Your task to perform on an android device: change your default location settings in chrome Image 0: 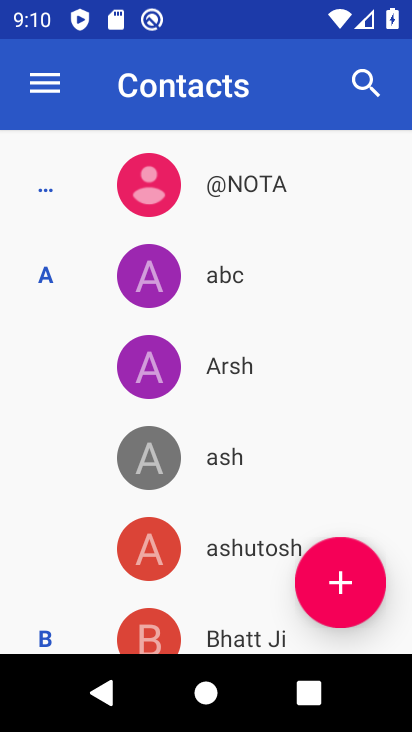
Step 0: press home button
Your task to perform on an android device: change your default location settings in chrome Image 1: 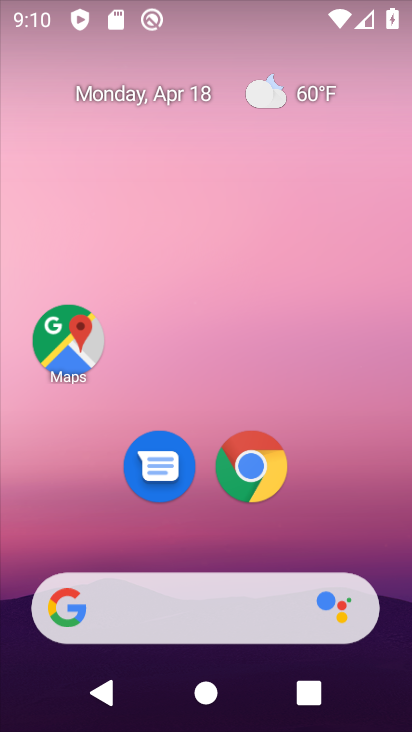
Step 1: click (241, 461)
Your task to perform on an android device: change your default location settings in chrome Image 2: 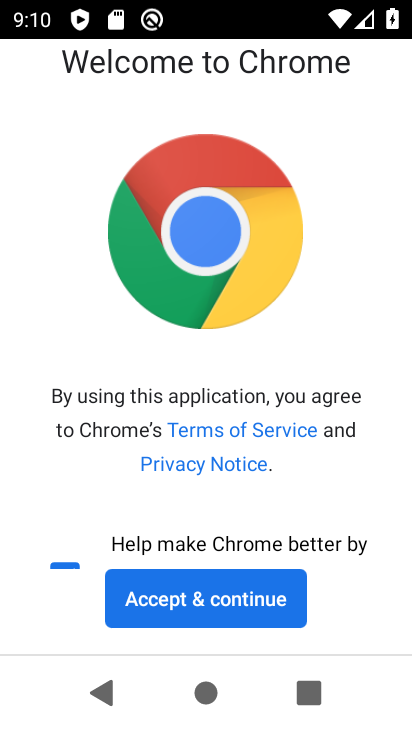
Step 2: click (220, 601)
Your task to perform on an android device: change your default location settings in chrome Image 3: 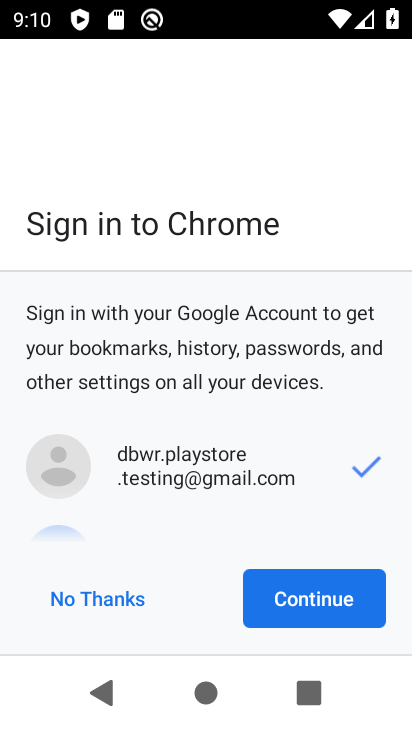
Step 3: click (293, 607)
Your task to perform on an android device: change your default location settings in chrome Image 4: 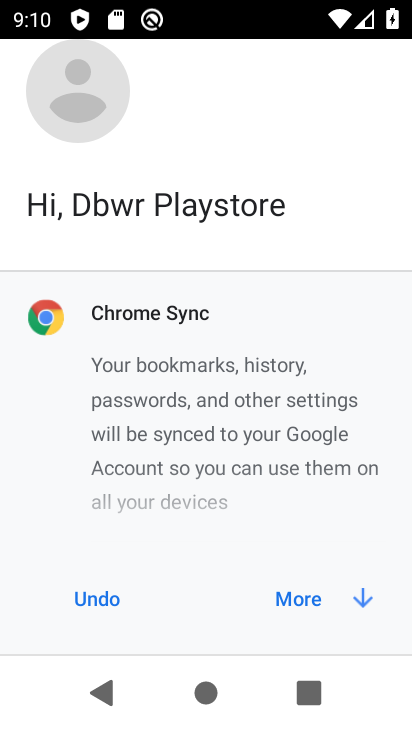
Step 4: click (291, 594)
Your task to perform on an android device: change your default location settings in chrome Image 5: 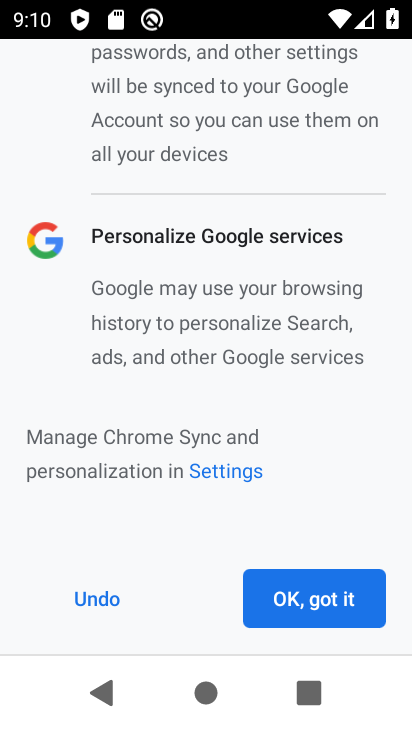
Step 5: click (363, 598)
Your task to perform on an android device: change your default location settings in chrome Image 6: 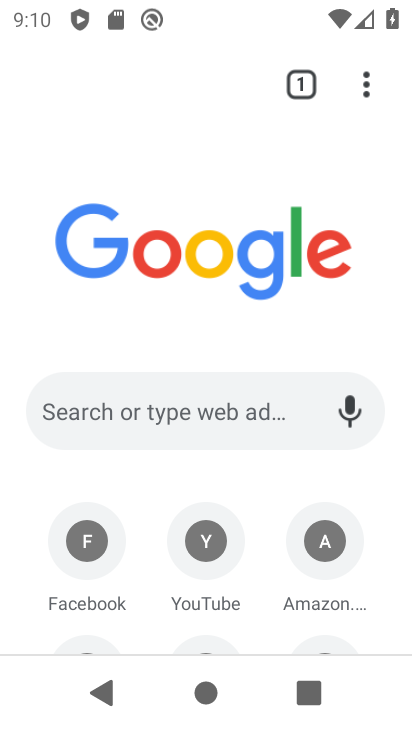
Step 6: click (364, 77)
Your task to perform on an android device: change your default location settings in chrome Image 7: 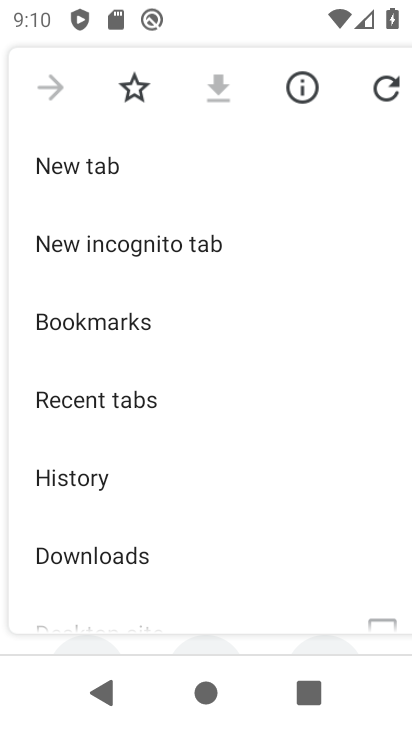
Step 7: drag from (184, 512) to (136, 112)
Your task to perform on an android device: change your default location settings in chrome Image 8: 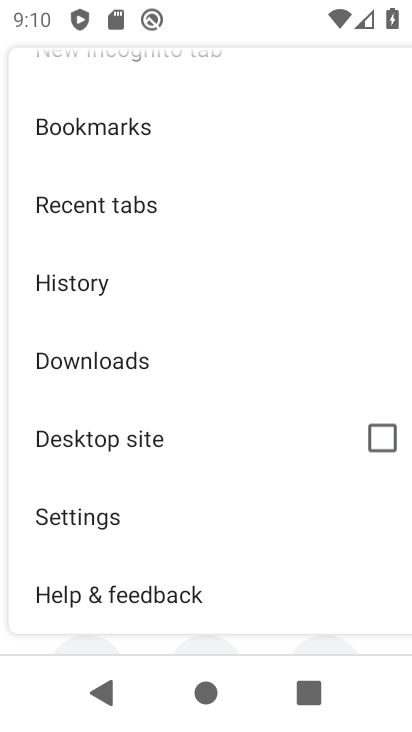
Step 8: click (95, 522)
Your task to perform on an android device: change your default location settings in chrome Image 9: 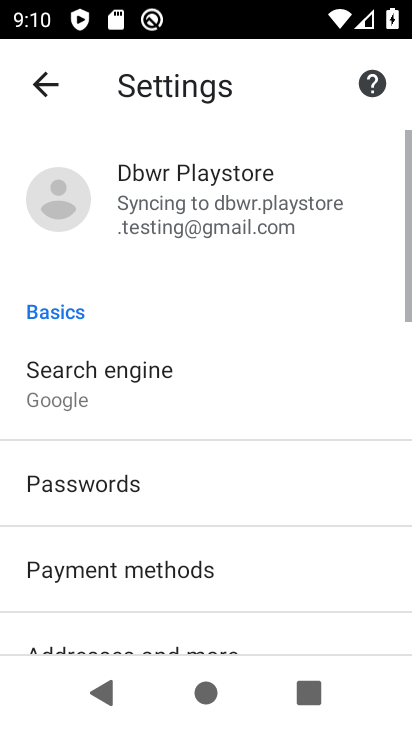
Step 9: drag from (224, 506) to (161, 84)
Your task to perform on an android device: change your default location settings in chrome Image 10: 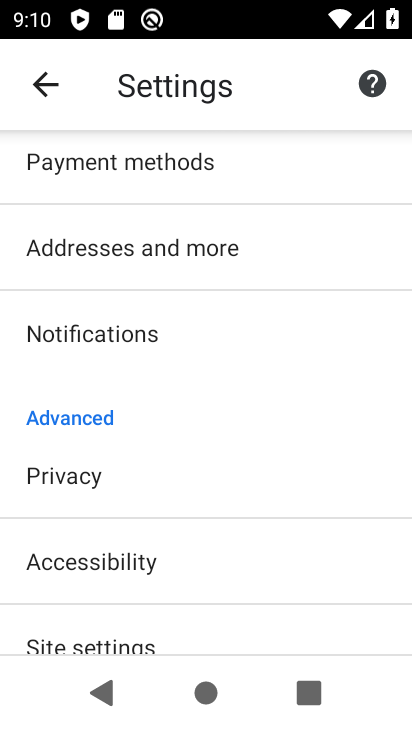
Step 10: drag from (195, 531) to (166, 154)
Your task to perform on an android device: change your default location settings in chrome Image 11: 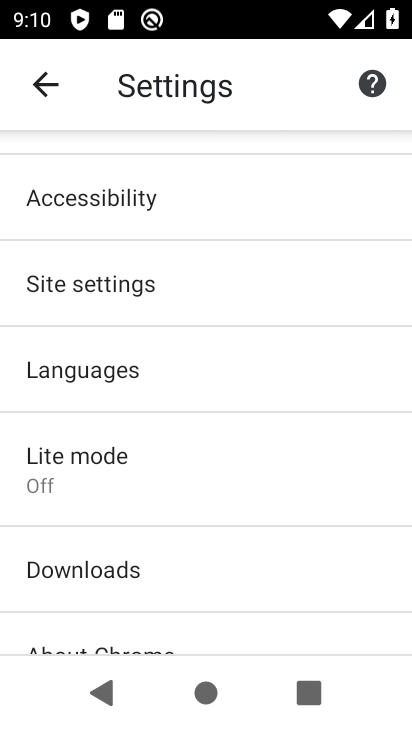
Step 11: drag from (195, 586) to (177, 212)
Your task to perform on an android device: change your default location settings in chrome Image 12: 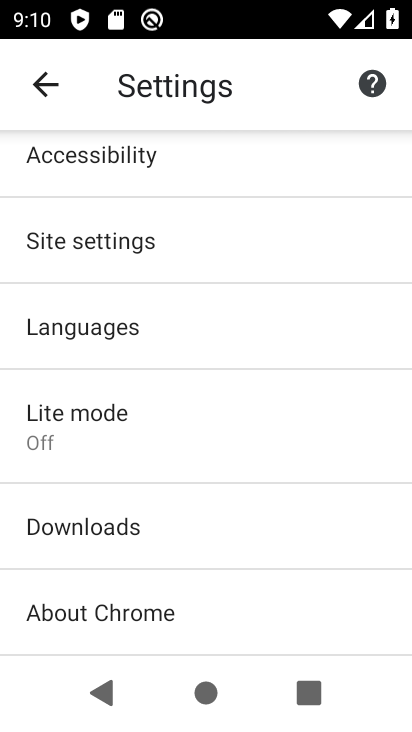
Step 12: drag from (202, 190) to (175, 556)
Your task to perform on an android device: change your default location settings in chrome Image 13: 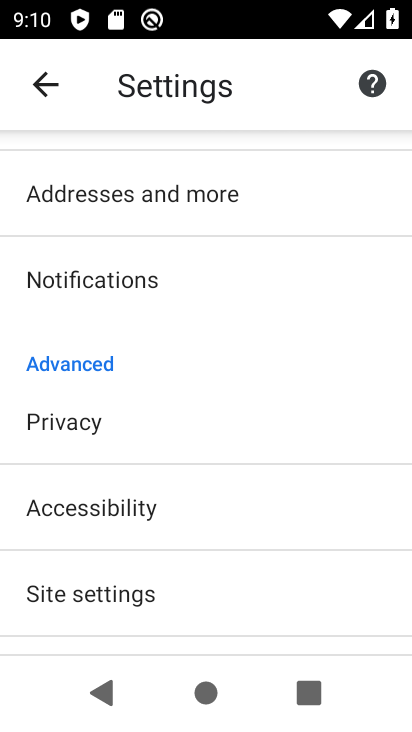
Step 13: drag from (270, 316) to (248, 526)
Your task to perform on an android device: change your default location settings in chrome Image 14: 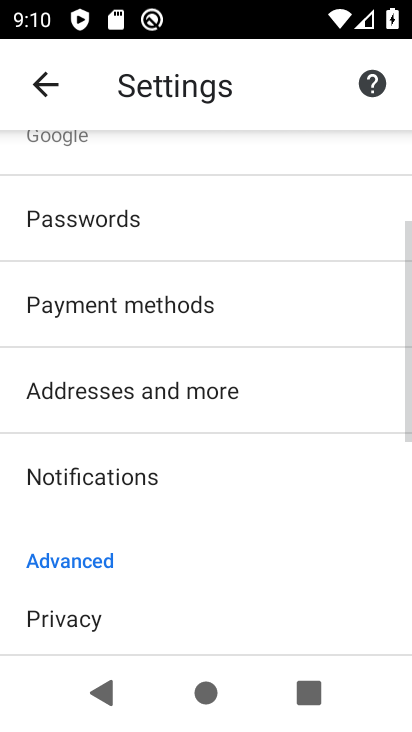
Step 14: drag from (239, 574) to (233, 117)
Your task to perform on an android device: change your default location settings in chrome Image 15: 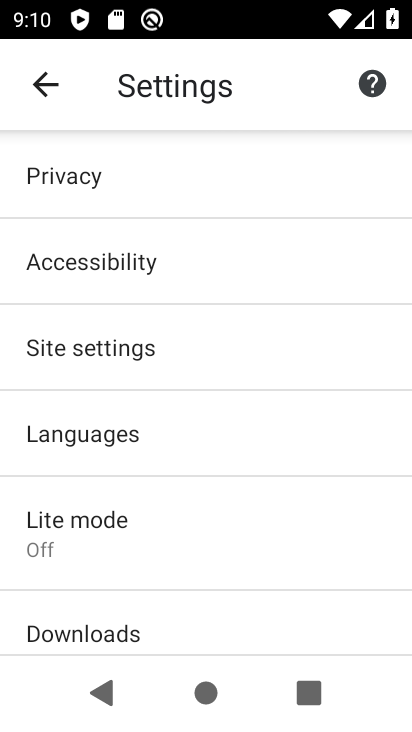
Step 15: click (114, 351)
Your task to perform on an android device: change your default location settings in chrome Image 16: 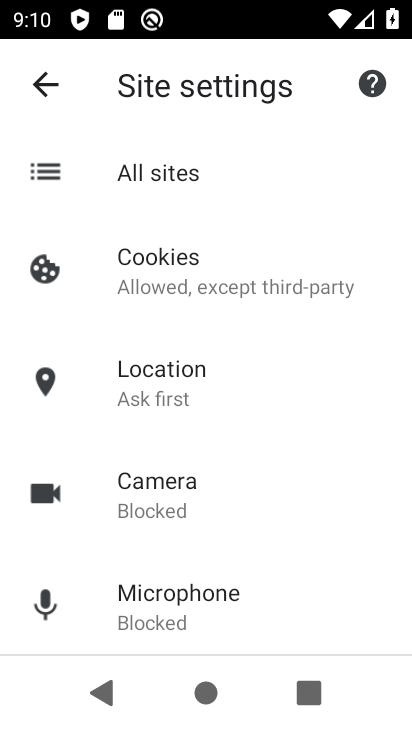
Step 16: click (161, 362)
Your task to perform on an android device: change your default location settings in chrome Image 17: 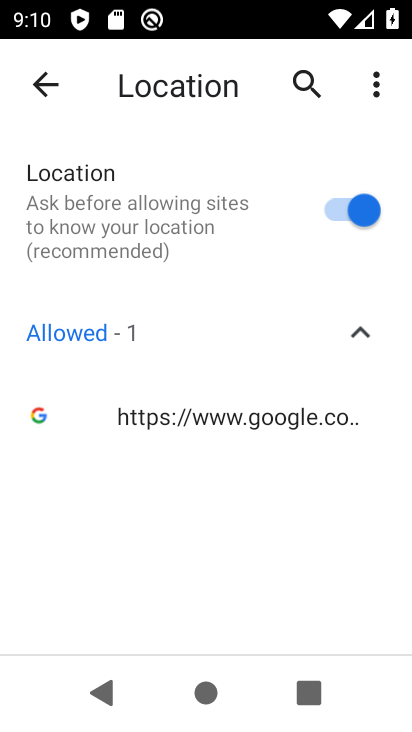
Step 17: click (359, 210)
Your task to perform on an android device: change your default location settings in chrome Image 18: 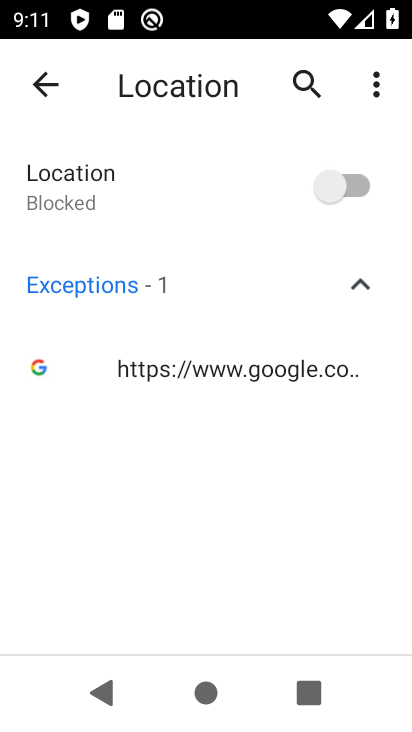
Step 18: task complete